Your task to perform on an android device: Search for pizza restaurants on Maps Image 0: 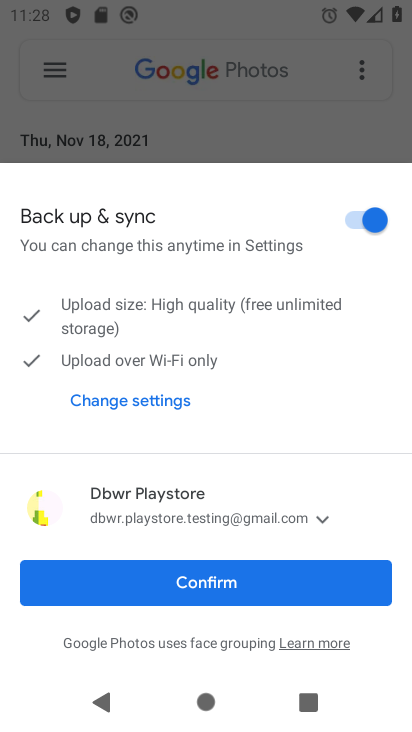
Step 0: press home button
Your task to perform on an android device: Search for pizza restaurants on Maps Image 1: 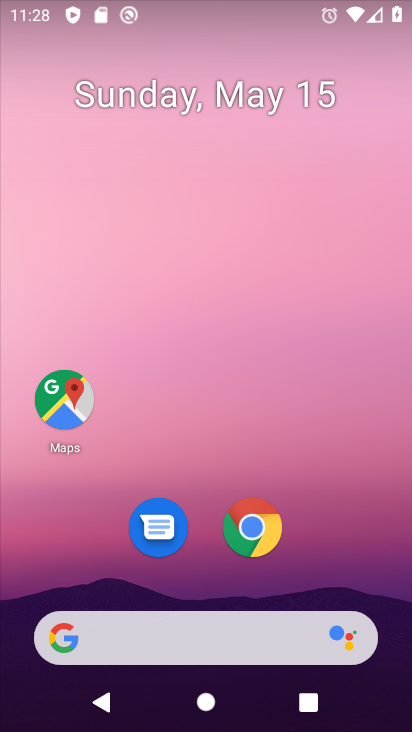
Step 1: click (72, 392)
Your task to perform on an android device: Search for pizza restaurants on Maps Image 2: 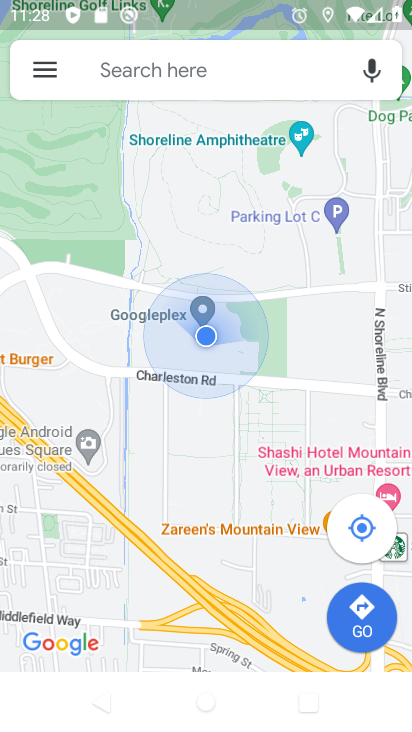
Step 2: click (136, 78)
Your task to perform on an android device: Search for pizza restaurants on Maps Image 3: 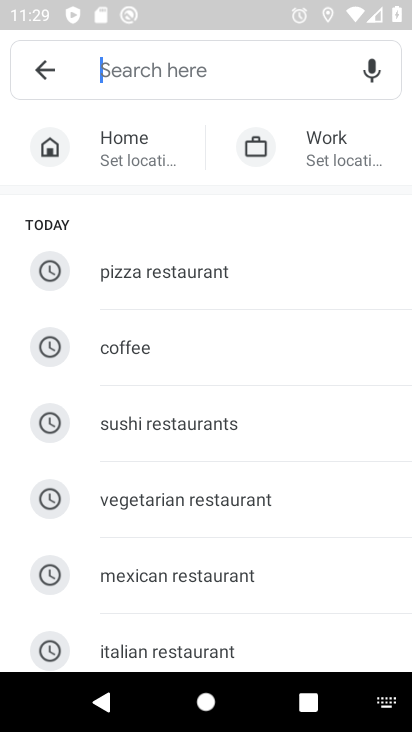
Step 3: click (209, 276)
Your task to perform on an android device: Search for pizza restaurants on Maps Image 4: 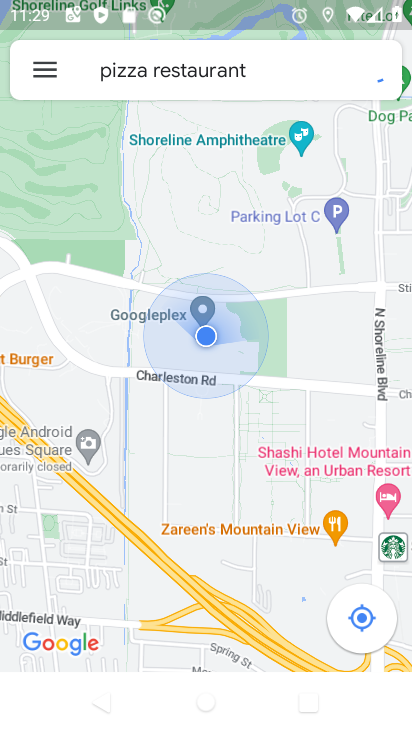
Step 4: task complete